Your task to perform on an android device: Open display settings Image 0: 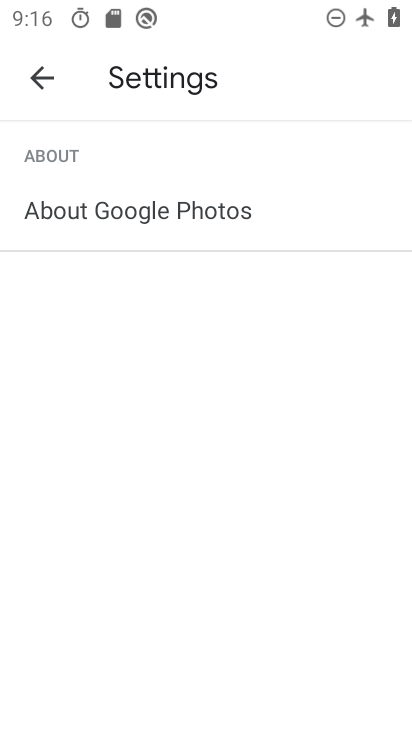
Step 0: press home button
Your task to perform on an android device: Open display settings Image 1: 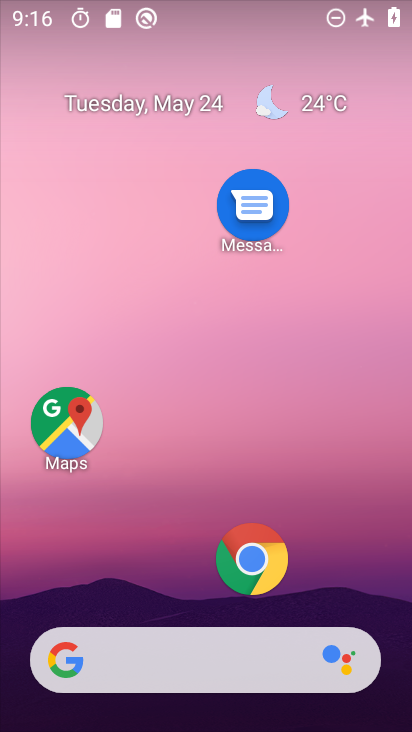
Step 1: drag from (217, 610) to (197, 188)
Your task to perform on an android device: Open display settings Image 2: 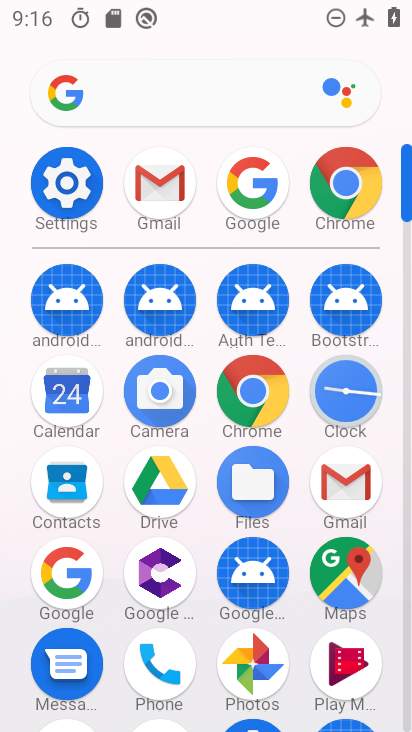
Step 2: click (64, 184)
Your task to perform on an android device: Open display settings Image 3: 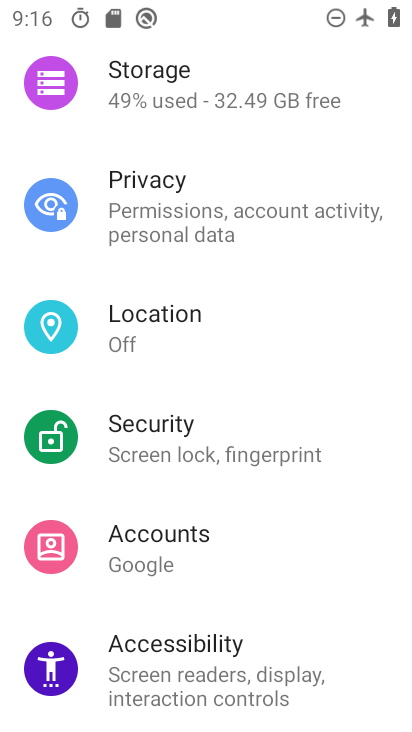
Step 3: drag from (226, 249) to (277, 475)
Your task to perform on an android device: Open display settings Image 4: 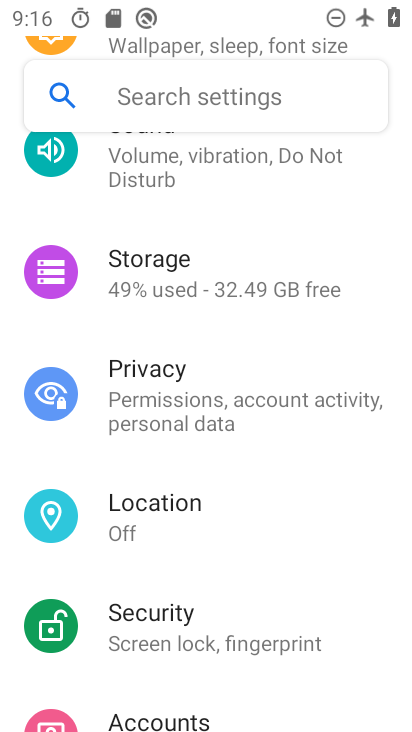
Step 4: drag from (250, 343) to (264, 471)
Your task to perform on an android device: Open display settings Image 5: 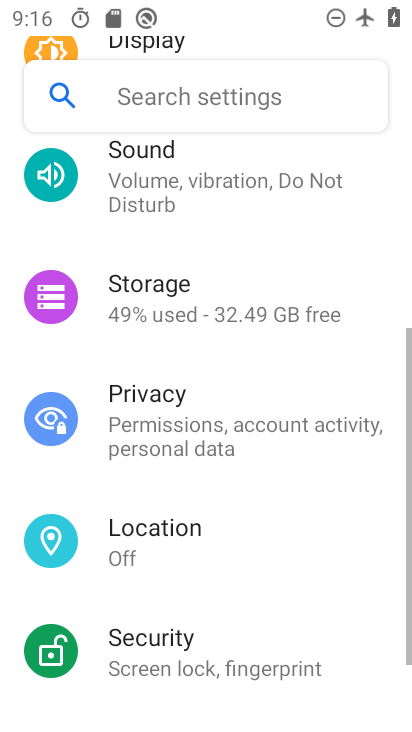
Step 5: drag from (210, 257) to (249, 539)
Your task to perform on an android device: Open display settings Image 6: 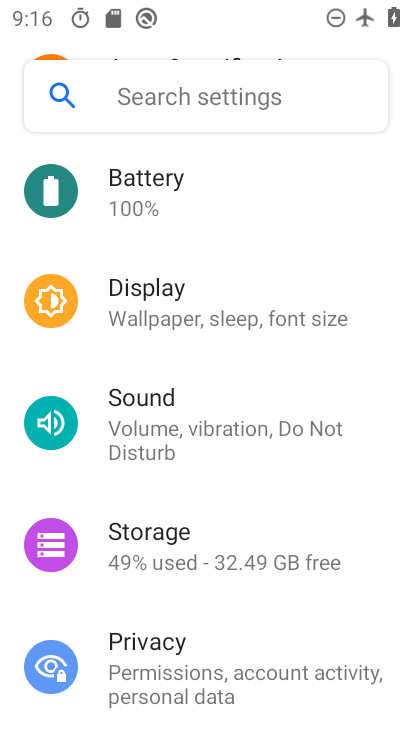
Step 6: click (185, 325)
Your task to perform on an android device: Open display settings Image 7: 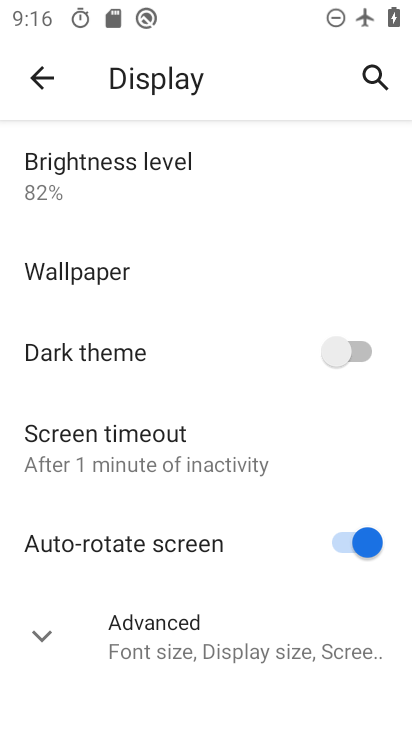
Step 7: task complete